Your task to perform on an android device: Is it going to rain this weekend? Image 0: 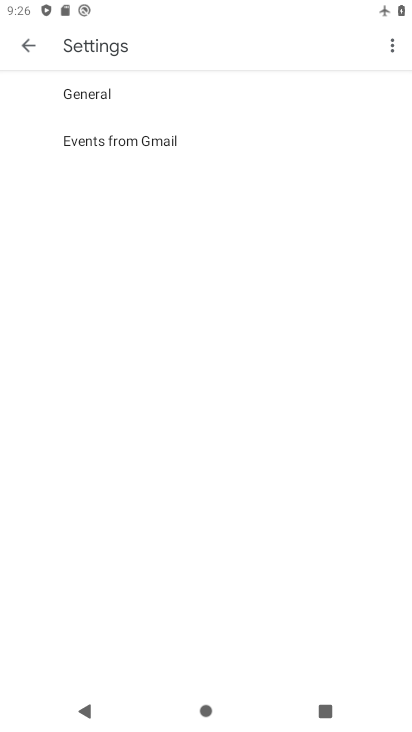
Step 0: press back button
Your task to perform on an android device: Is it going to rain this weekend? Image 1: 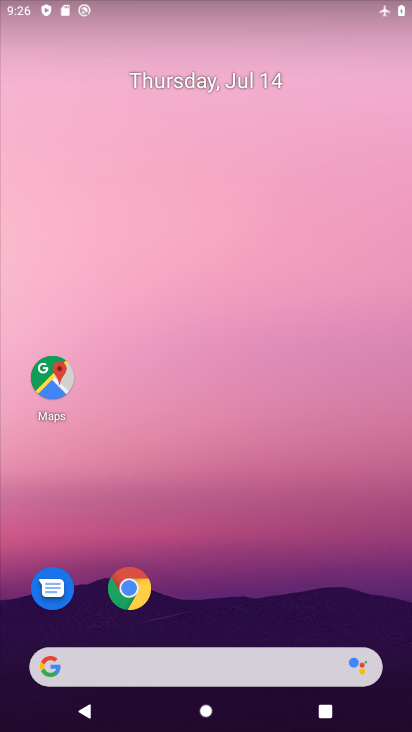
Step 1: drag from (230, 505) to (314, 7)
Your task to perform on an android device: Is it going to rain this weekend? Image 2: 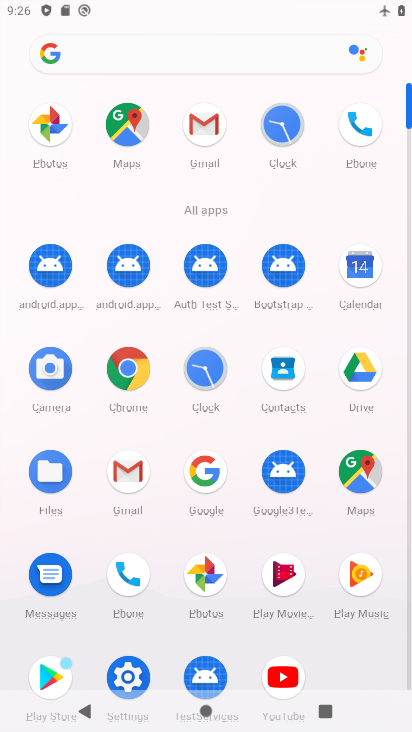
Step 2: click (174, 48)
Your task to perform on an android device: Is it going to rain this weekend? Image 3: 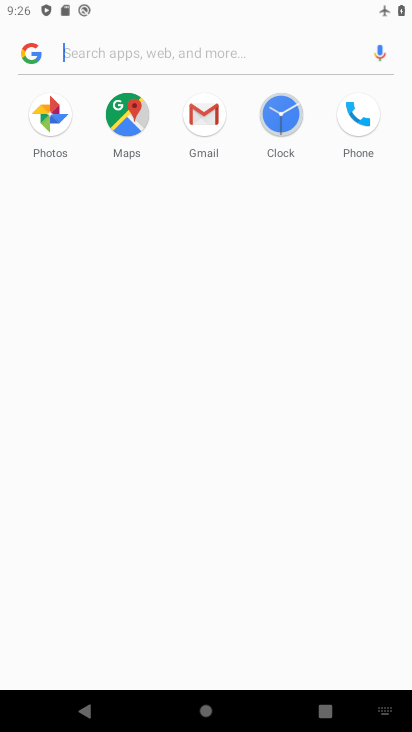
Step 3: type "weather"
Your task to perform on an android device: Is it going to rain this weekend? Image 4: 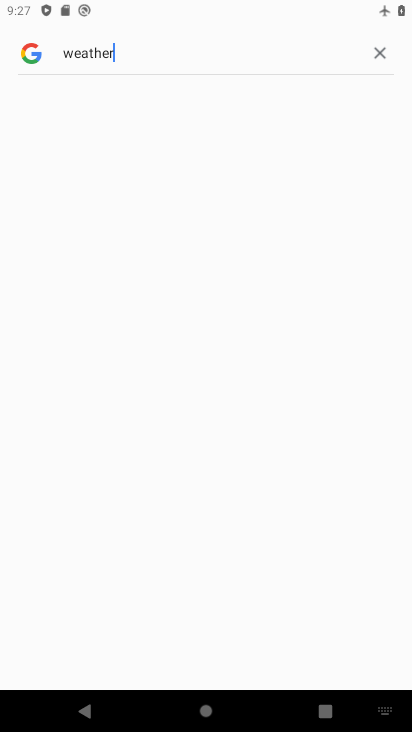
Step 4: drag from (342, 5) to (337, 545)
Your task to perform on an android device: Is it going to rain this weekend? Image 5: 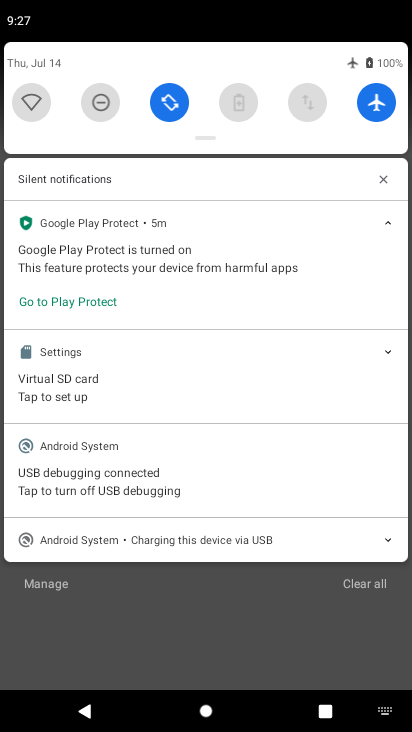
Step 5: click (378, 109)
Your task to perform on an android device: Is it going to rain this weekend? Image 6: 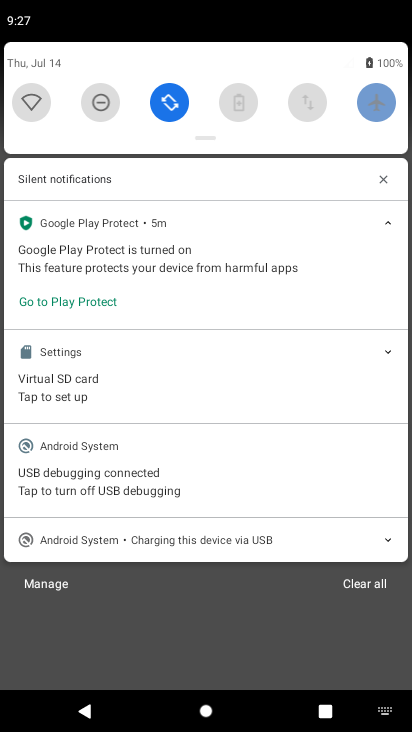
Step 6: click (185, 601)
Your task to perform on an android device: Is it going to rain this weekend? Image 7: 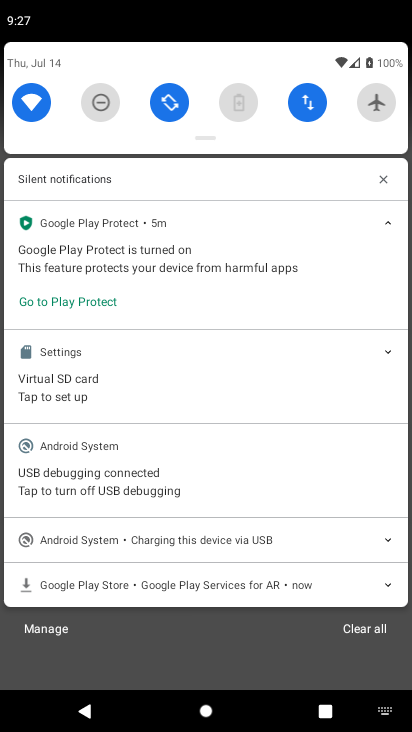
Step 7: click (164, 650)
Your task to perform on an android device: Is it going to rain this weekend? Image 8: 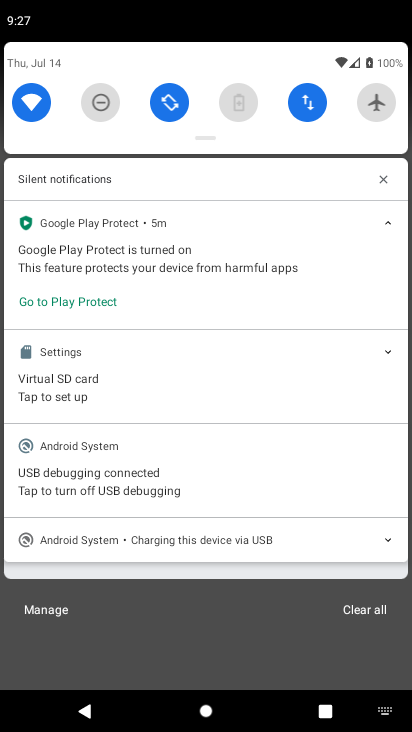
Step 8: drag from (171, 646) to (254, 111)
Your task to perform on an android device: Is it going to rain this weekend? Image 9: 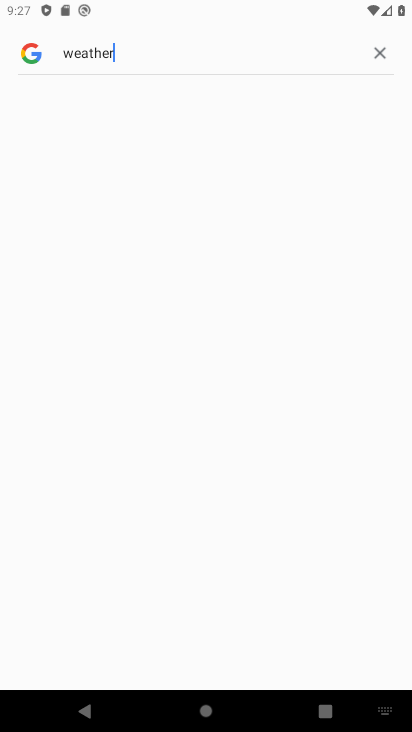
Step 9: click (175, 56)
Your task to perform on an android device: Is it going to rain this weekend? Image 10: 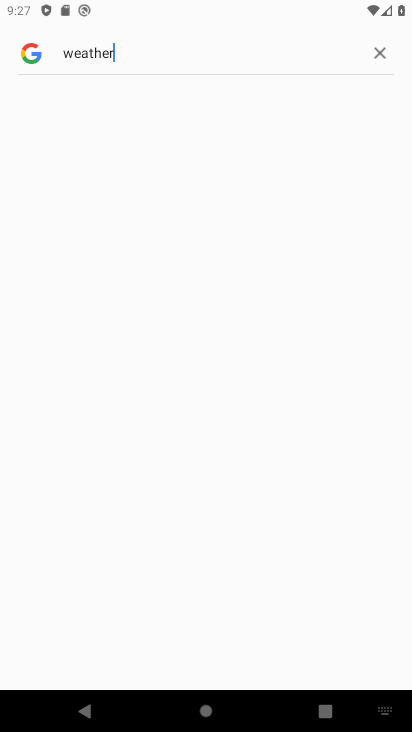
Step 10: task complete